Your task to perform on an android device: Open eBay Image 0: 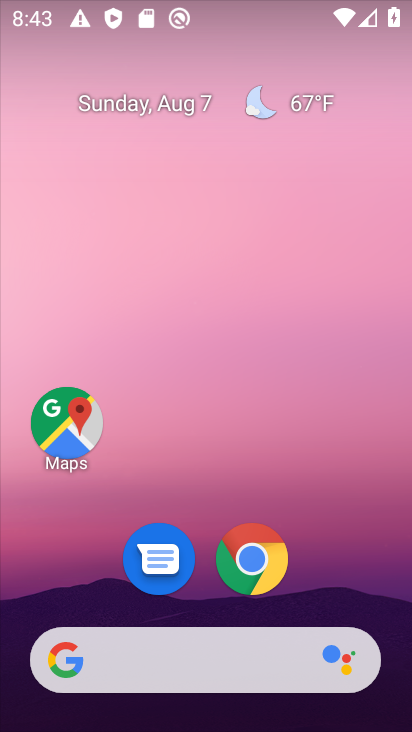
Step 0: click (246, 562)
Your task to perform on an android device: Open eBay Image 1: 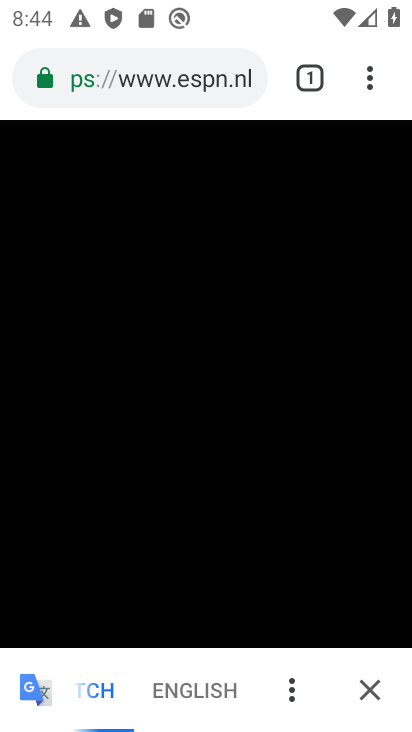
Step 1: click (316, 77)
Your task to perform on an android device: Open eBay Image 2: 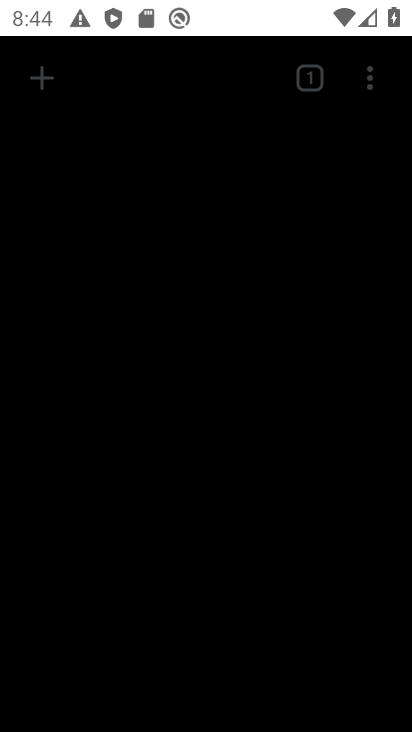
Step 2: drag from (265, 397) to (207, 203)
Your task to perform on an android device: Open eBay Image 3: 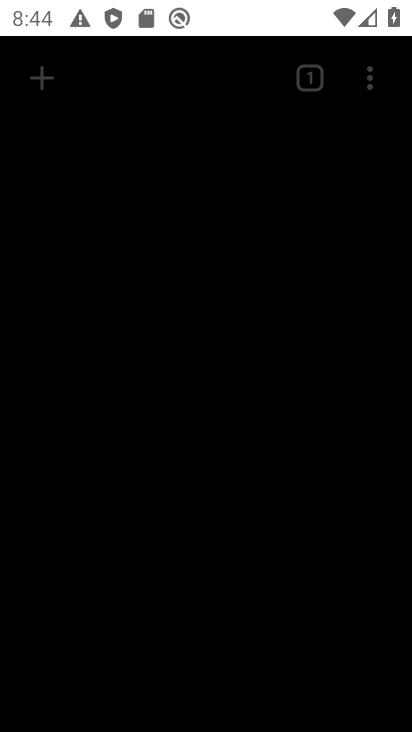
Step 3: press back button
Your task to perform on an android device: Open eBay Image 4: 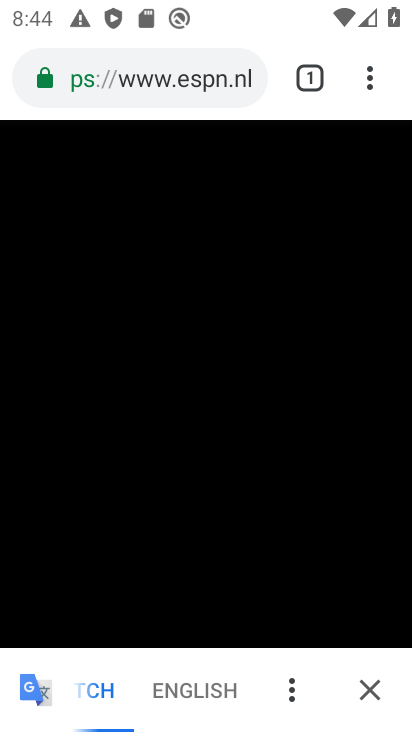
Step 4: click (316, 66)
Your task to perform on an android device: Open eBay Image 5: 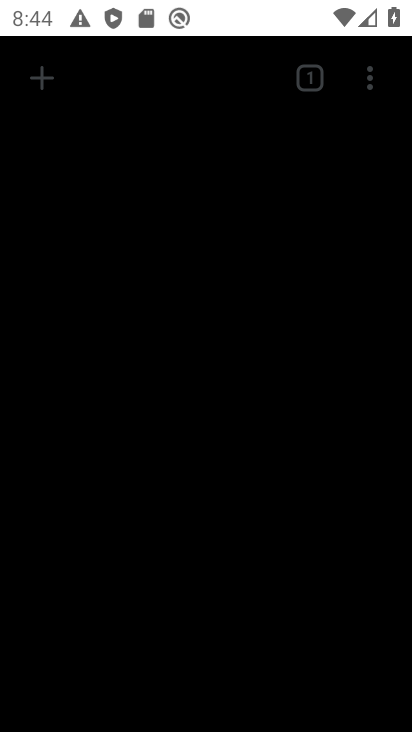
Step 5: click (24, 77)
Your task to perform on an android device: Open eBay Image 6: 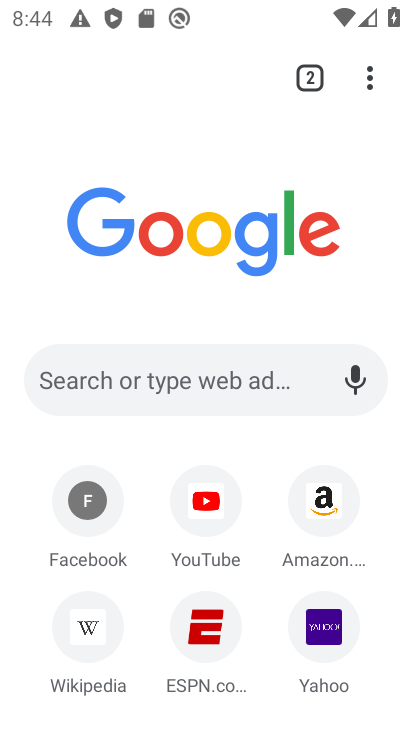
Step 6: click (209, 374)
Your task to perform on an android device: Open eBay Image 7: 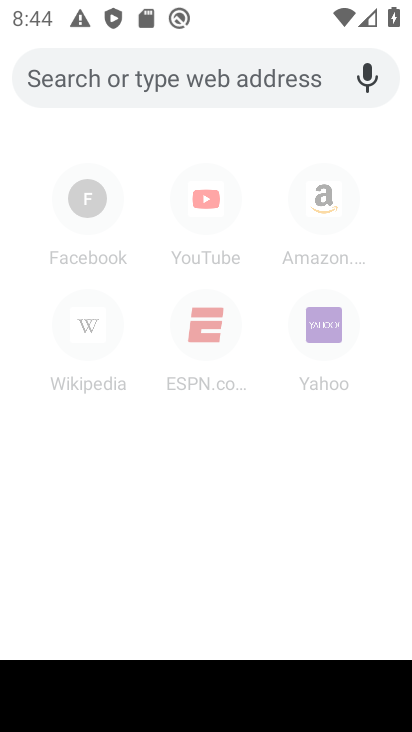
Step 7: type "ebay.com"
Your task to perform on an android device: Open eBay Image 8: 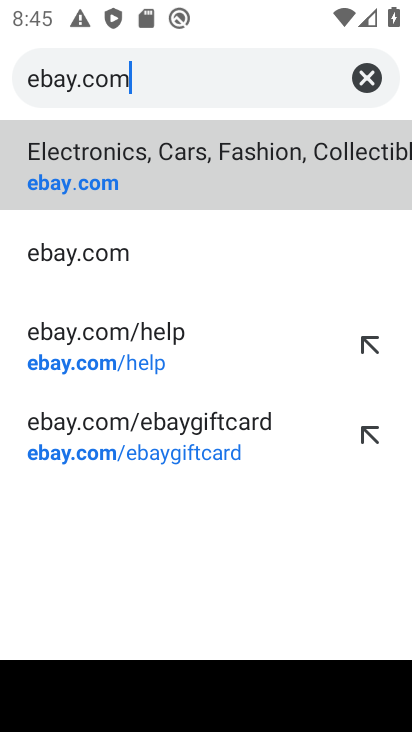
Step 8: click (161, 175)
Your task to perform on an android device: Open eBay Image 9: 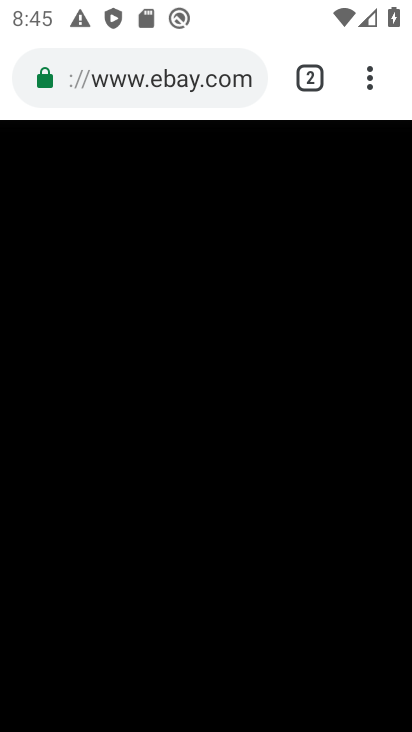
Step 9: task complete